Your task to perform on an android device: turn off improve location accuracy Image 0: 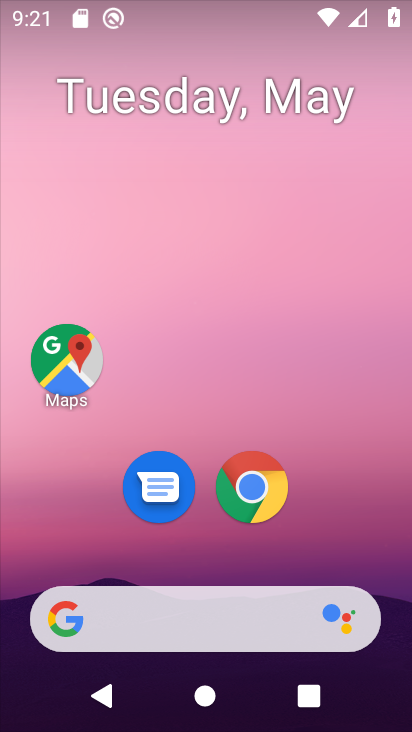
Step 0: press home button
Your task to perform on an android device: turn off improve location accuracy Image 1: 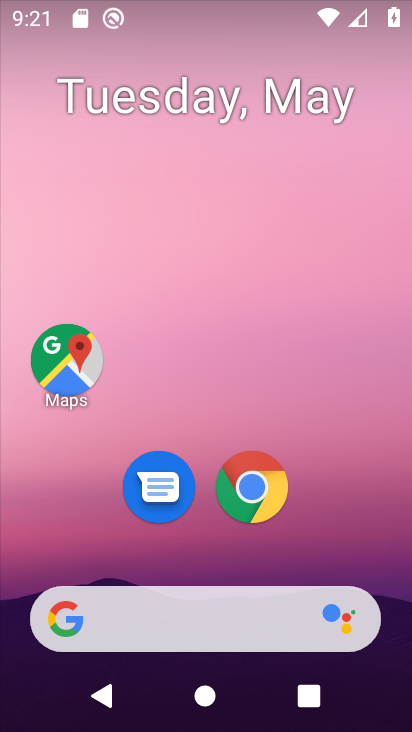
Step 1: drag from (137, 610) to (295, 99)
Your task to perform on an android device: turn off improve location accuracy Image 2: 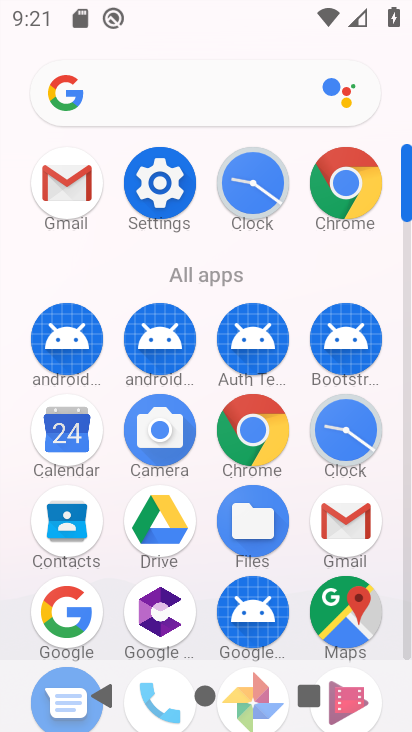
Step 2: click (155, 182)
Your task to perform on an android device: turn off improve location accuracy Image 3: 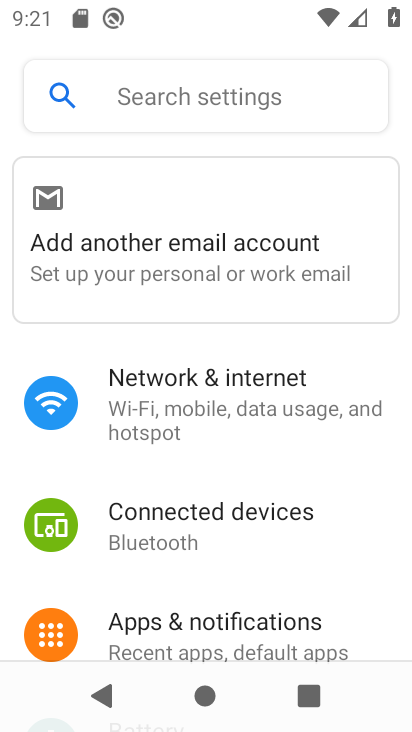
Step 3: drag from (188, 598) to (352, 31)
Your task to perform on an android device: turn off improve location accuracy Image 4: 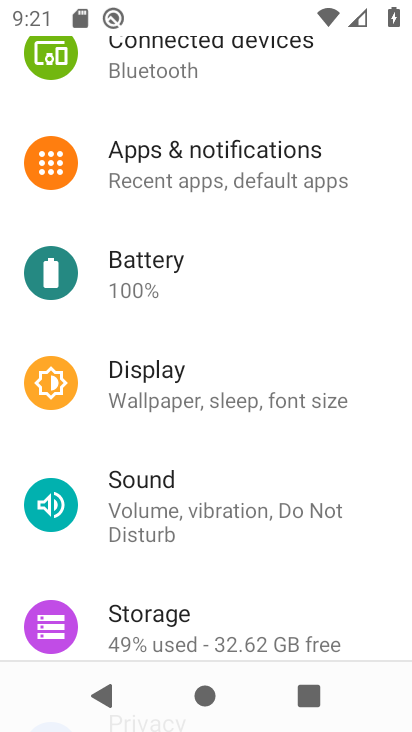
Step 4: drag from (221, 579) to (274, 123)
Your task to perform on an android device: turn off improve location accuracy Image 5: 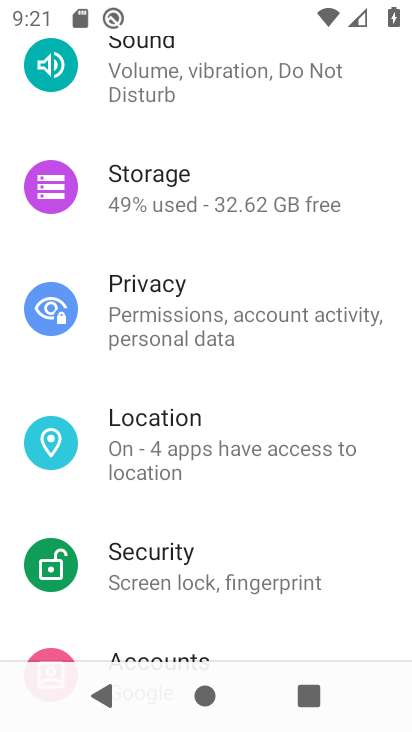
Step 5: click (141, 442)
Your task to perform on an android device: turn off improve location accuracy Image 6: 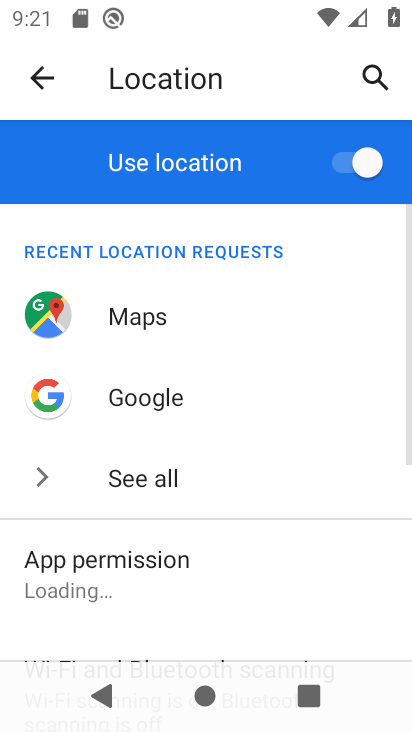
Step 6: drag from (234, 617) to (279, 125)
Your task to perform on an android device: turn off improve location accuracy Image 7: 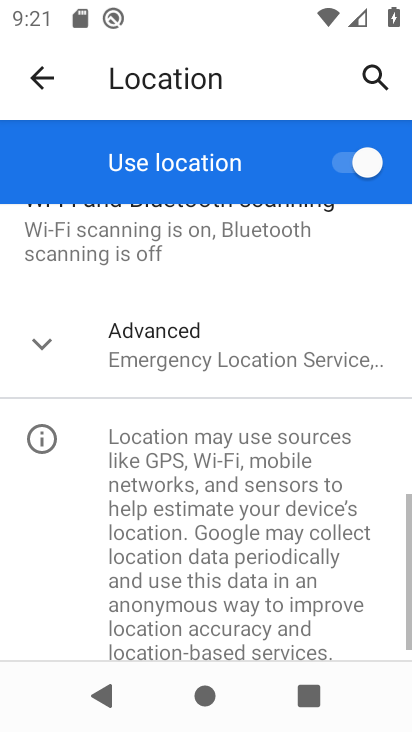
Step 7: click (166, 363)
Your task to perform on an android device: turn off improve location accuracy Image 8: 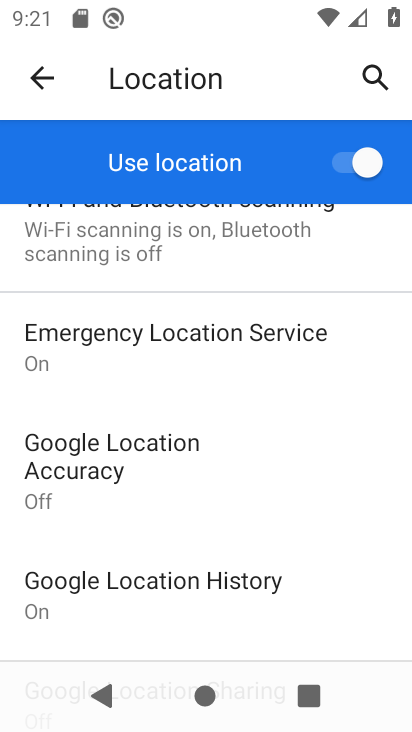
Step 8: click (72, 480)
Your task to perform on an android device: turn off improve location accuracy Image 9: 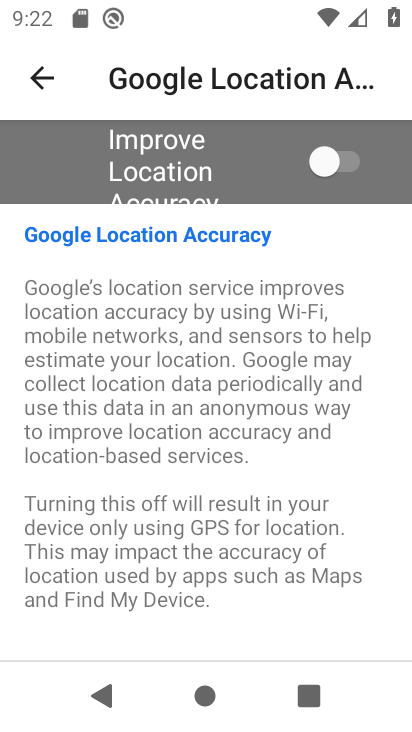
Step 9: task complete